Your task to perform on an android device: toggle translation in the chrome app Image 0: 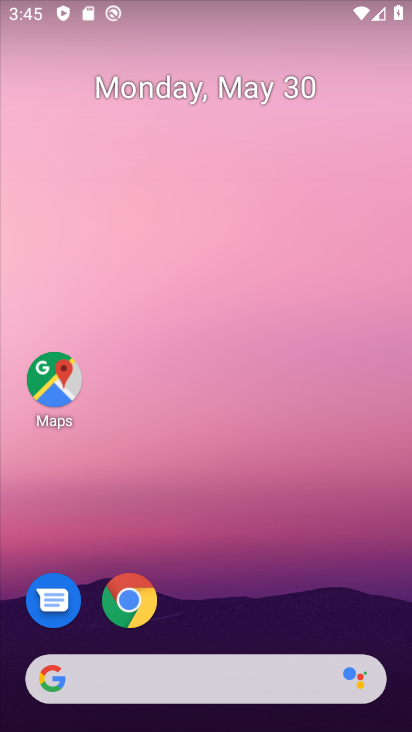
Step 0: drag from (316, 641) to (180, 8)
Your task to perform on an android device: toggle translation in the chrome app Image 1: 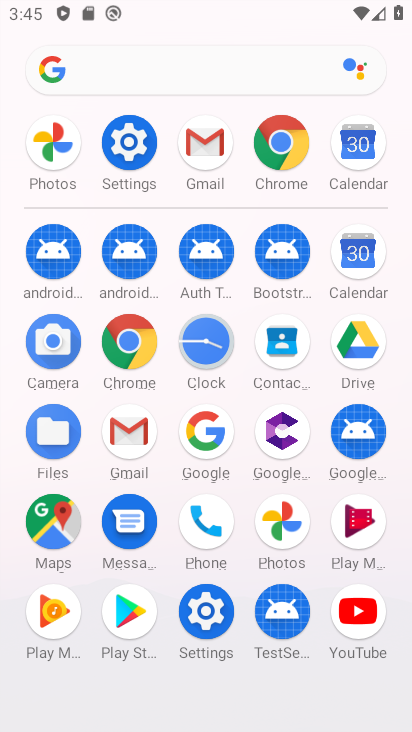
Step 1: click (278, 143)
Your task to perform on an android device: toggle translation in the chrome app Image 2: 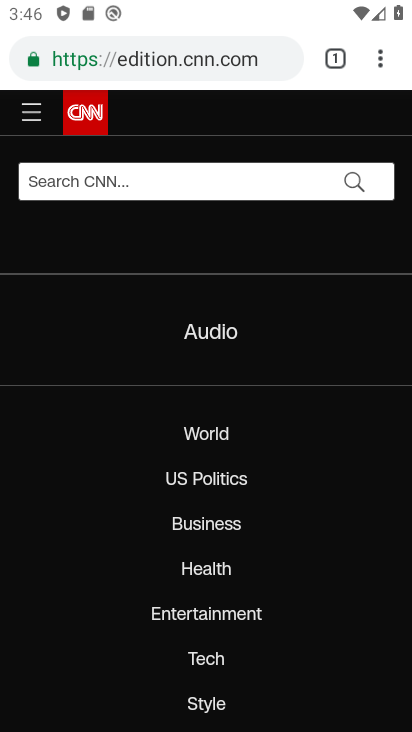
Step 2: click (390, 47)
Your task to perform on an android device: toggle translation in the chrome app Image 3: 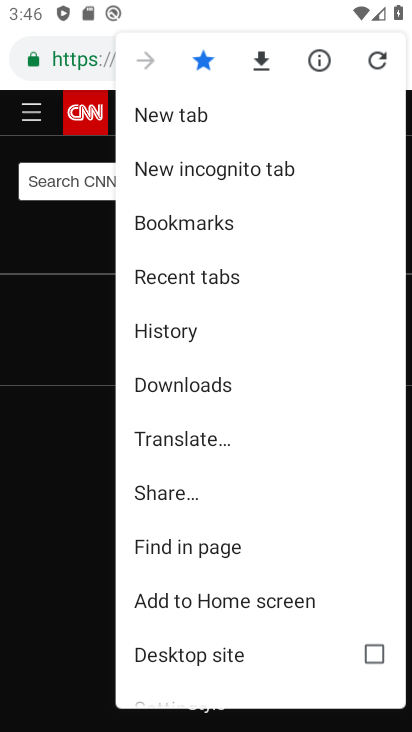
Step 3: drag from (251, 618) to (210, 206)
Your task to perform on an android device: toggle translation in the chrome app Image 4: 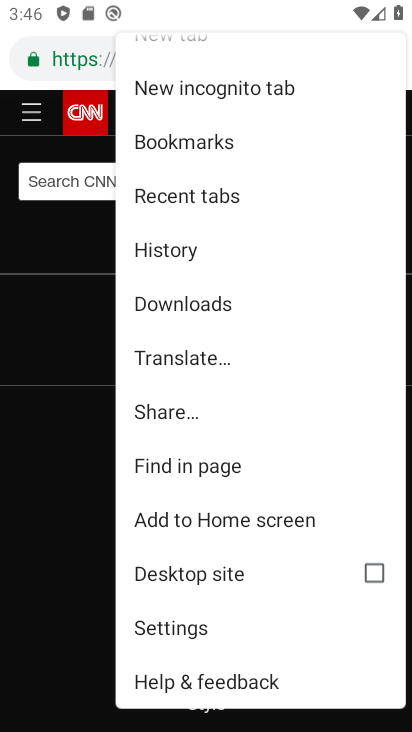
Step 4: click (237, 623)
Your task to perform on an android device: toggle translation in the chrome app Image 5: 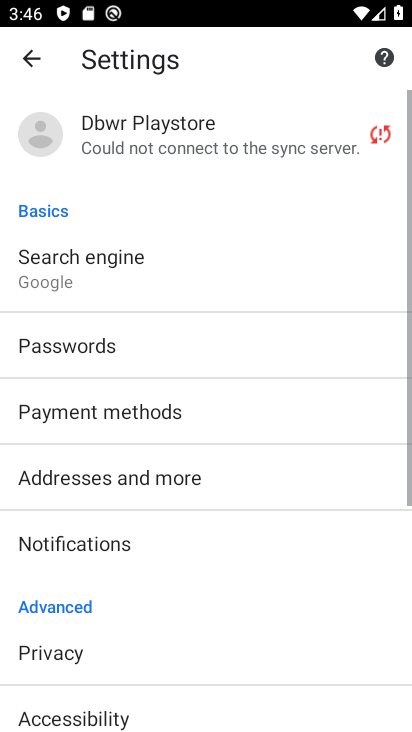
Step 5: drag from (237, 623) to (186, 202)
Your task to perform on an android device: toggle translation in the chrome app Image 6: 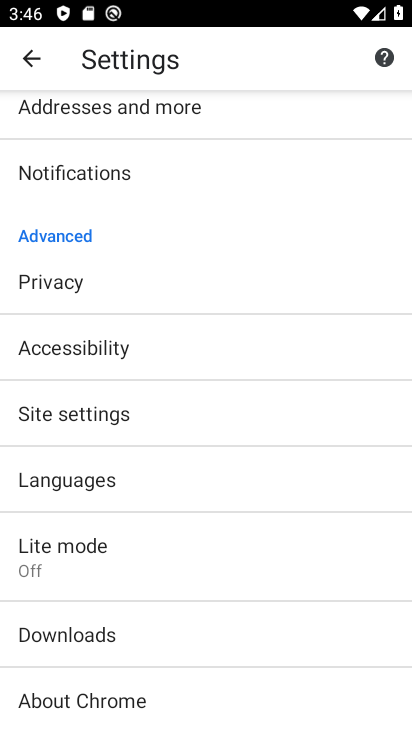
Step 6: click (162, 479)
Your task to perform on an android device: toggle translation in the chrome app Image 7: 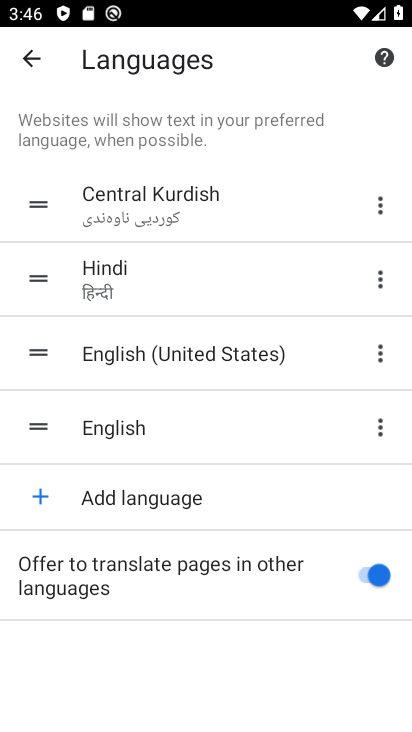
Step 7: click (369, 573)
Your task to perform on an android device: toggle translation in the chrome app Image 8: 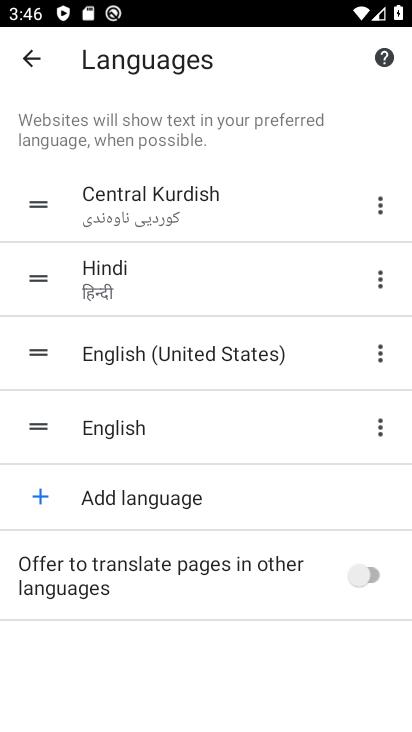
Step 8: task complete